Your task to perform on an android device: see creations saved in the google photos Image 0: 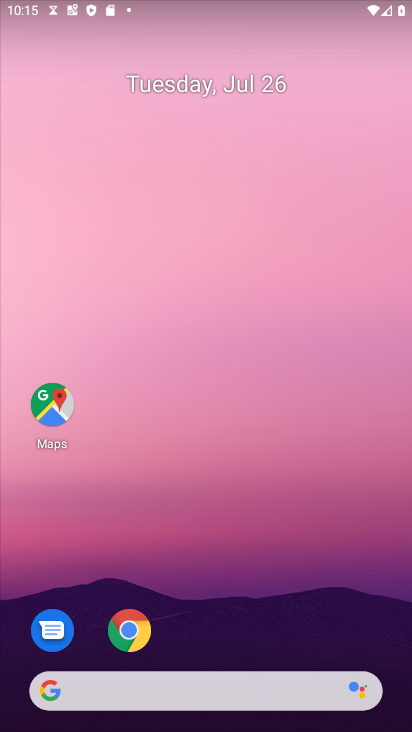
Step 0: drag from (182, 635) to (168, 235)
Your task to perform on an android device: see creations saved in the google photos Image 1: 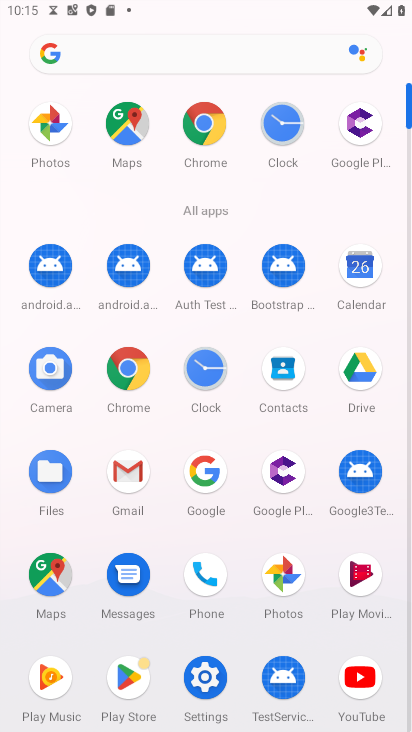
Step 1: click (283, 572)
Your task to perform on an android device: see creations saved in the google photos Image 2: 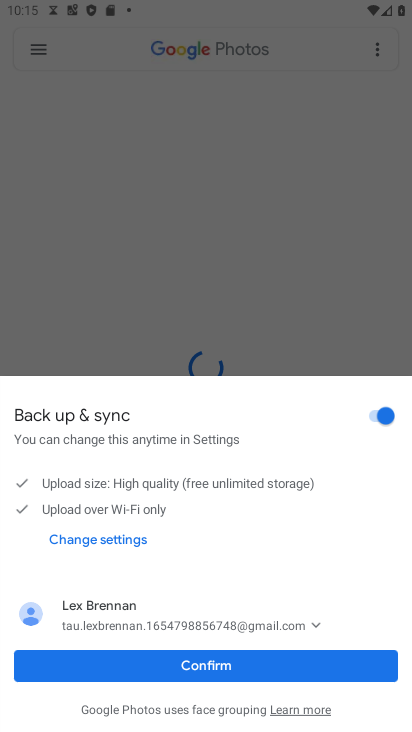
Step 2: click (186, 668)
Your task to perform on an android device: see creations saved in the google photos Image 3: 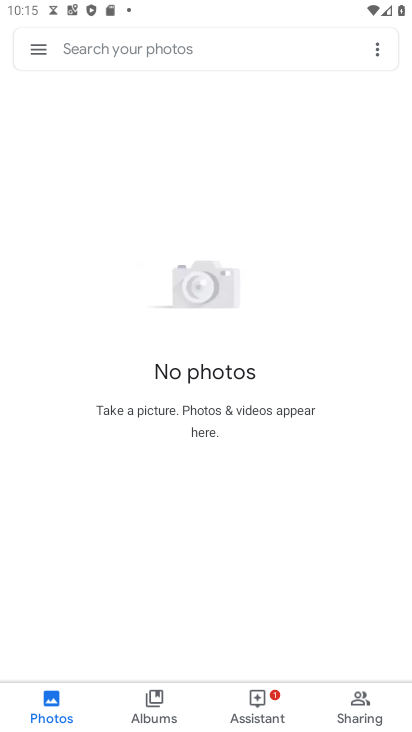
Step 3: click (140, 51)
Your task to perform on an android device: see creations saved in the google photos Image 4: 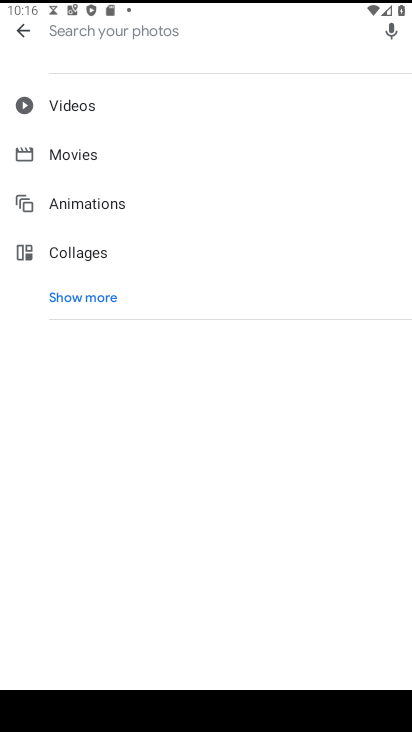
Step 4: click (92, 297)
Your task to perform on an android device: see creations saved in the google photos Image 5: 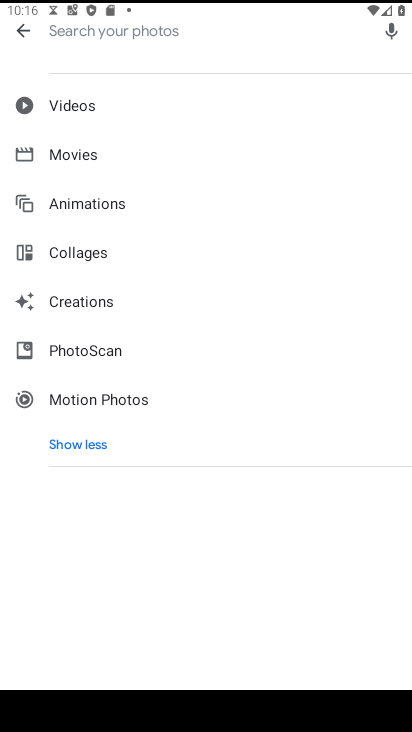
Step 5: click (92, 297)
Your task to perform on an android device: see creations saved in the google photos Image 6: 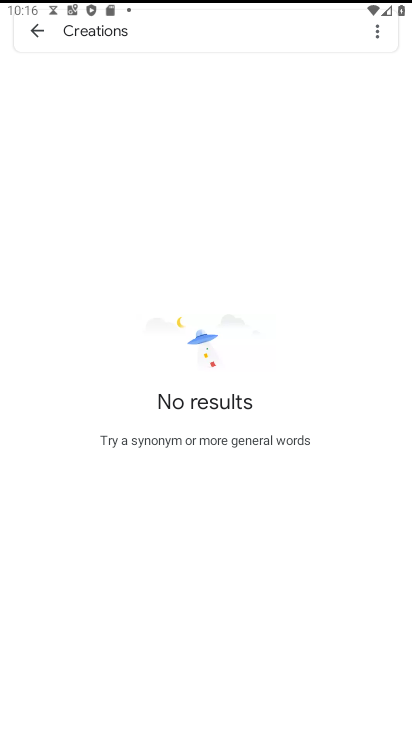
Step 6: task complete